Your task to perform on an android device: Open Google Image 0: 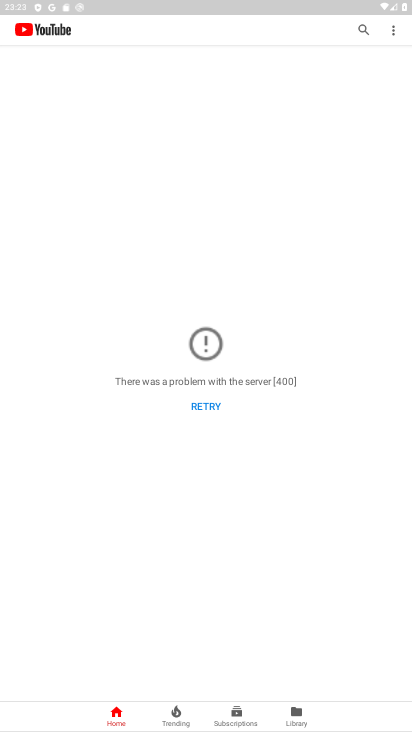
Step 0: press home button
Your task to perform on an android device: Open Google Image 1: 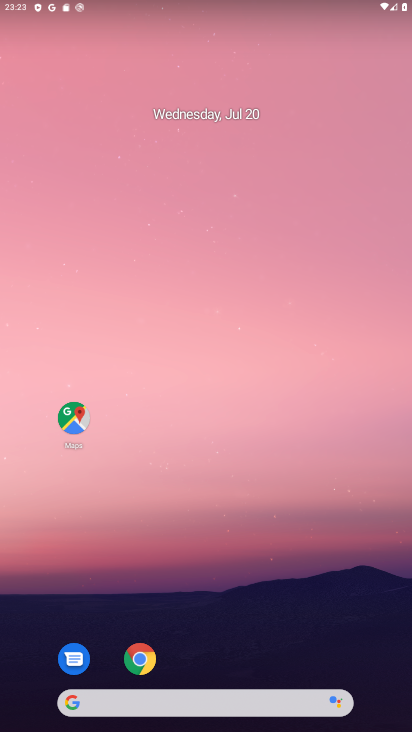
Step 1: click (141, 660)
Your task to perform on an android device: Open Google Image 2: 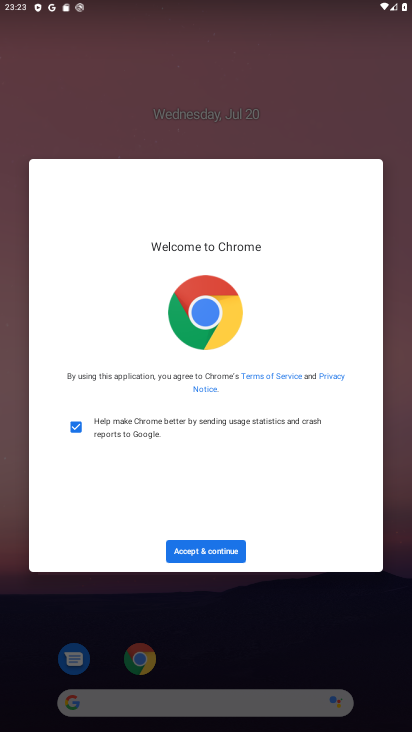
Step 2: click (204, 549)
Your task to perform on an android device: Open Google Image 3: 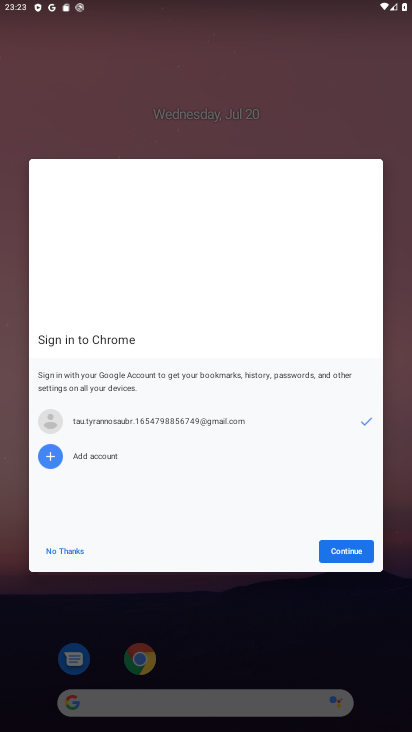
Step 3: click (346, 547)
Your task to perform on an android device: Open Google Image 4: 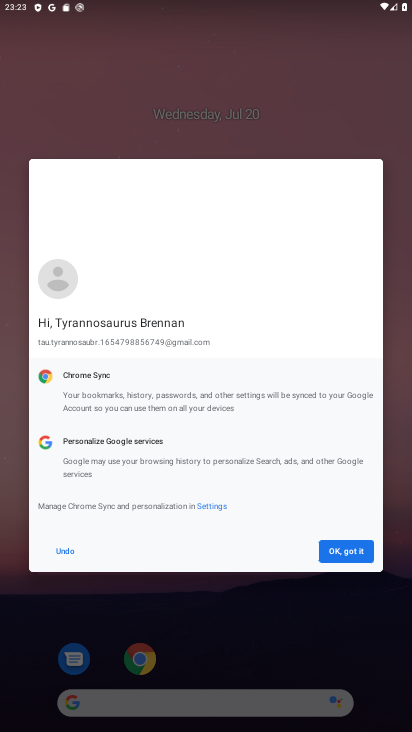
Step 4: click (346, 547)
Your task to perform on an android device: Open Google Image 5: 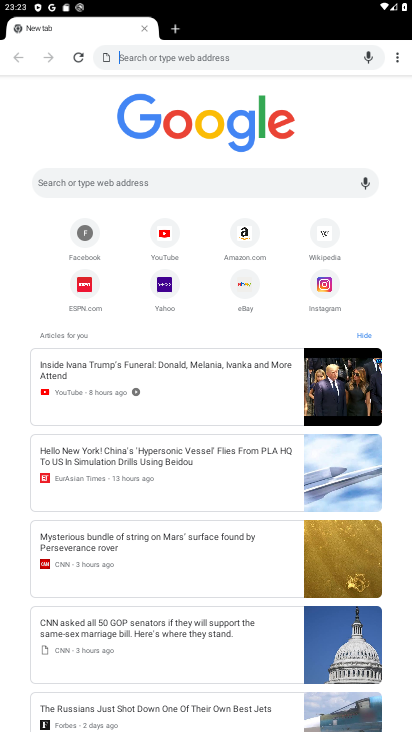
Step 5: task complete